Your task to perform on an android device: Open the calendar and show me this week's events? Image 0: 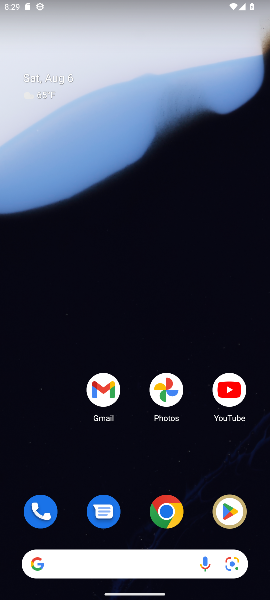
Step 0: press home button
Your task to perform on an android device: Open the calendar and show me this week's events? Image 1: 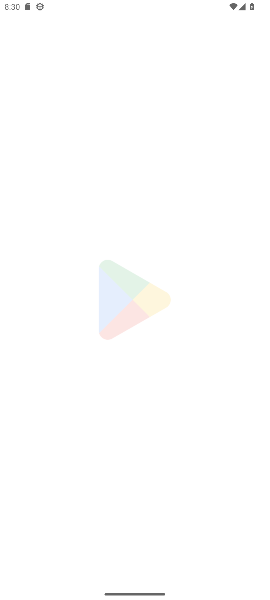
Step 1: click (126, 0)
Your task to perform on an android device: Open the calendar and show me this week's events? Image 2: 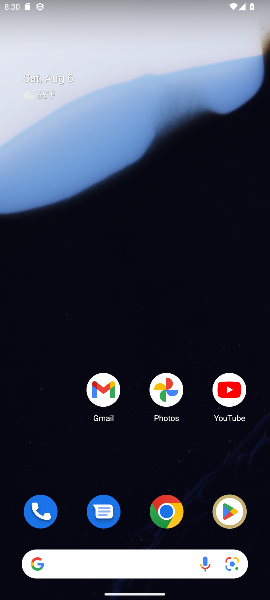
Step 2: drag from (205, 486) to (190, 314)
Your task to perform on an android device: Open the calendar and show me this week's events? Image 3: 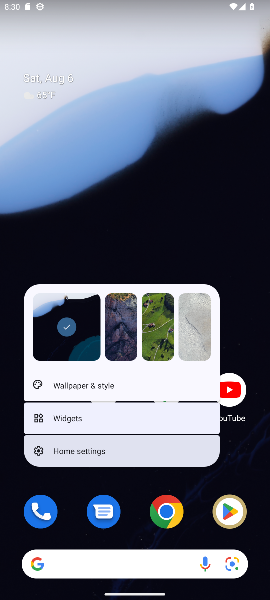
Step 3: click (236, 336)
Your task to perform on an android device: Open the calendar and show me this week's events? Image 4: 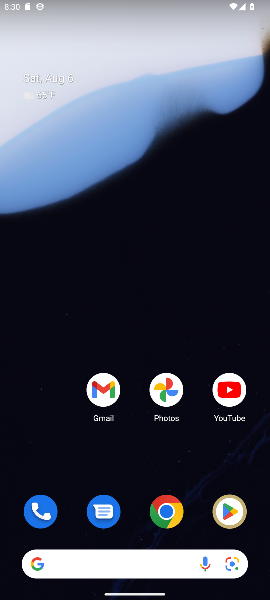
Step 4: drag from (165, 565) to (94, 410)
Your task to perform on an android device: Open the calendar and show me this week's events? Image 5: 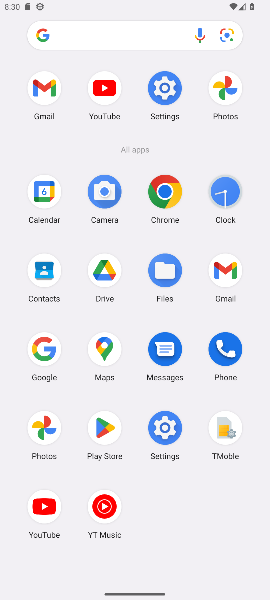
Step 5: click (43, 190)
Your task to perform on an android device: Open the calendar and show me this week's events? Image 6: 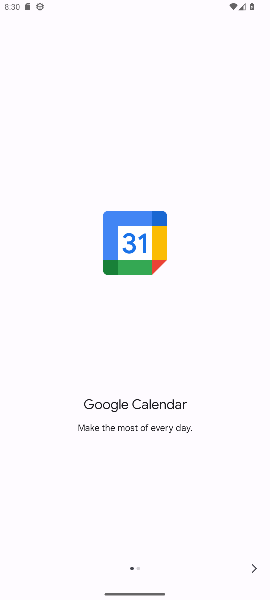
Step 6: click (254, 568)
Your task to perform on an android device: Open the calendar and show me this week's events? Image 7: 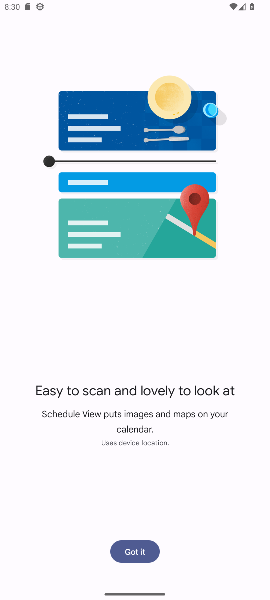
Step 7: click (136, 558)
Your task to perform on an android device: Open the calendar and show me this week's events? Image 8: 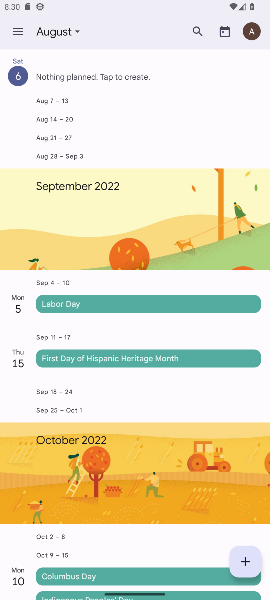
Step 8: click (70, 32)
Your task to perform on an android device: Open the calendar and show me this week's events? Image 9: 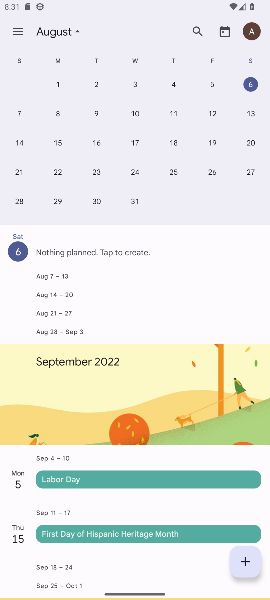
Step 9: click (251, 110)
Your task to perform on an android device: Open the calendar and show me this week's events? Image 10: 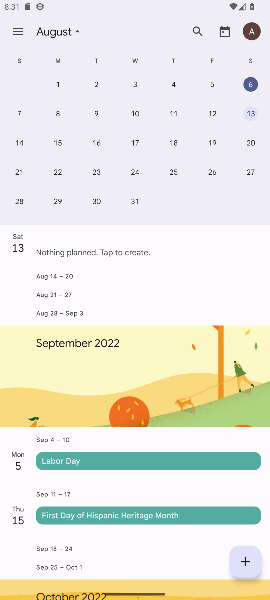
Step 10: task complete